Your task to perform on an android device: toggle javascript in the chrome app Image 0: 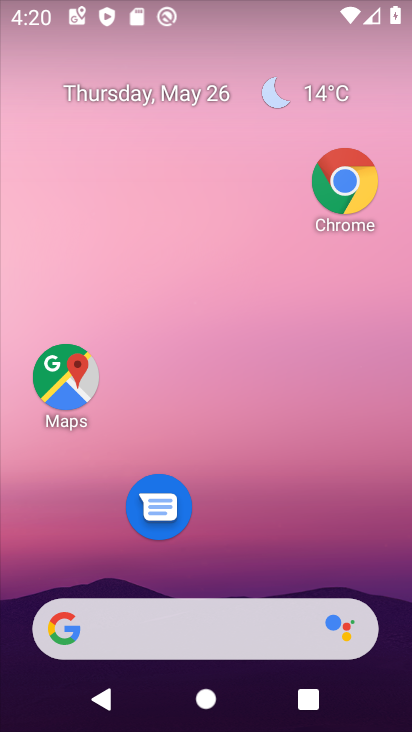
Step 0: drag from (270, 559) to (301, 73)
Your task to perform on an android device: toggle javascript in the chrome app Image 1: 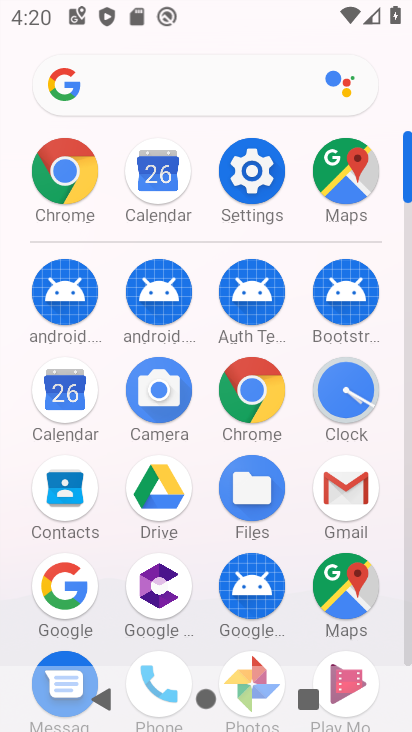
Step 1: click (254, 388)
Your task to perform on an android device: toggle javascript in the chrome app Image 2: 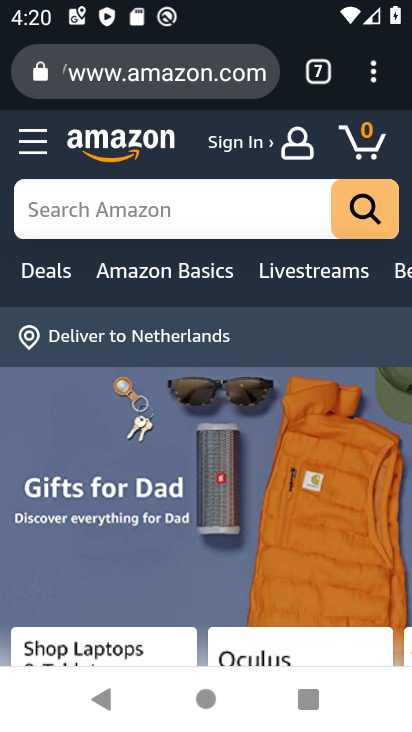
Step 2: drag from (372, 72) to (144, 510)
Your task to perform on an android device: toggle javascript in the chrome app Image 3: 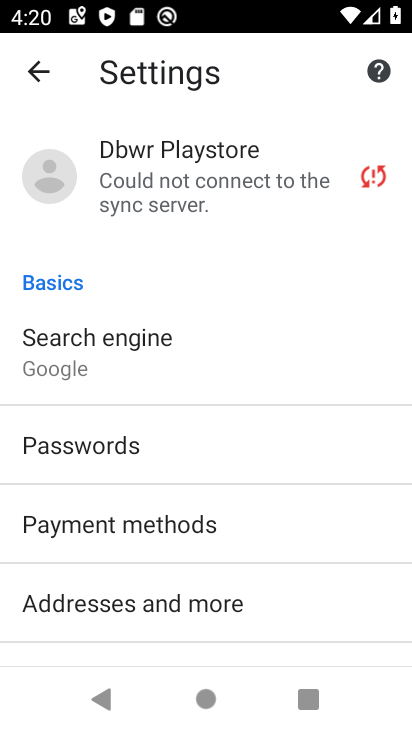
Step 3: drag from (298, 622) to (294, 290)
Your task to perform on an android device: toggle javascript in the chrome app Image 4: 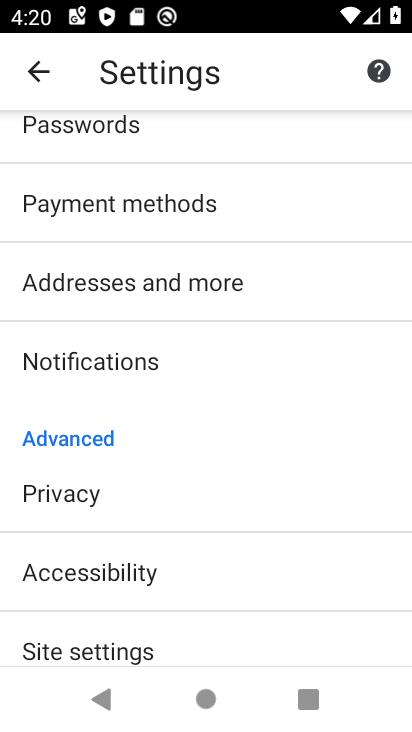
Step 4: click (190, 648)
Your task to perform on an android device: toggle javascript in the chrome app Image 5: 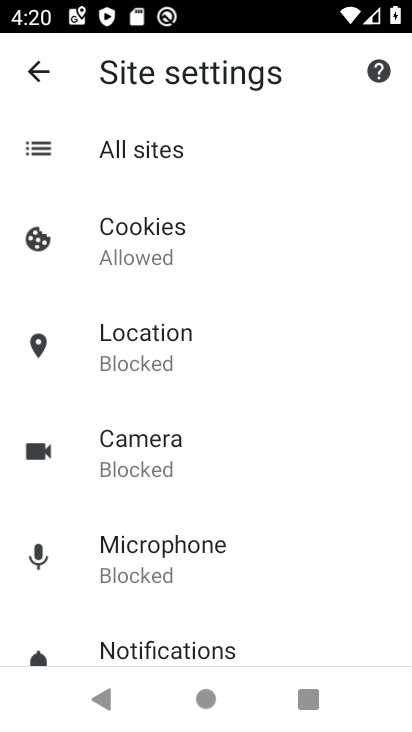
Step 5: drag from (254, 557) to (235, 192)
Your task to perform on an android device: toggle javascript in the chrome app Image 6: 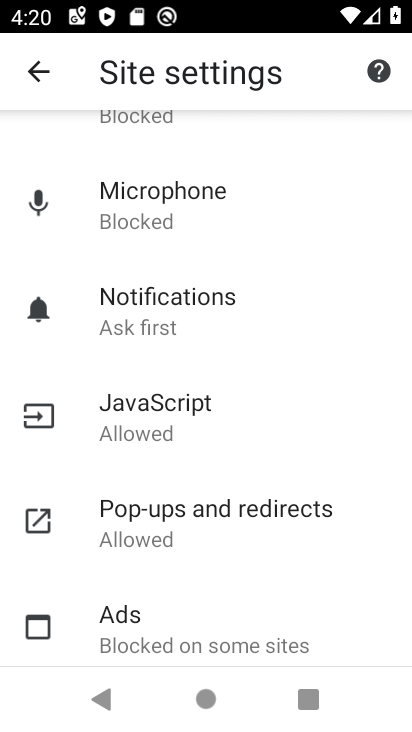
Step 6: click (108, 399)
Your task to perform on an android device: toggle javascript in the chrome app Image 7: 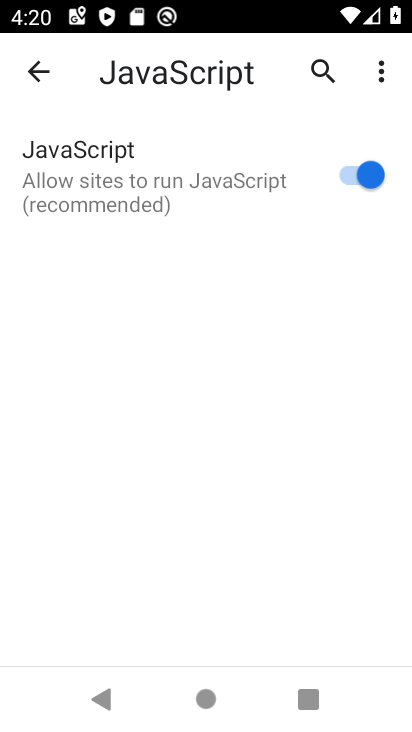
Step 7: click (351, 168)
Your task to perform on an android device: toggle javascript in the chrome app Image 8: 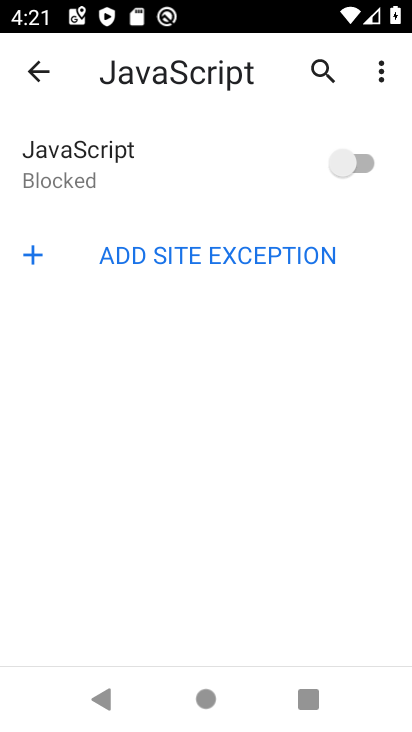
Step 8: task complete